Your task to perform on an android device: turn on improve location accuracy Image 0: 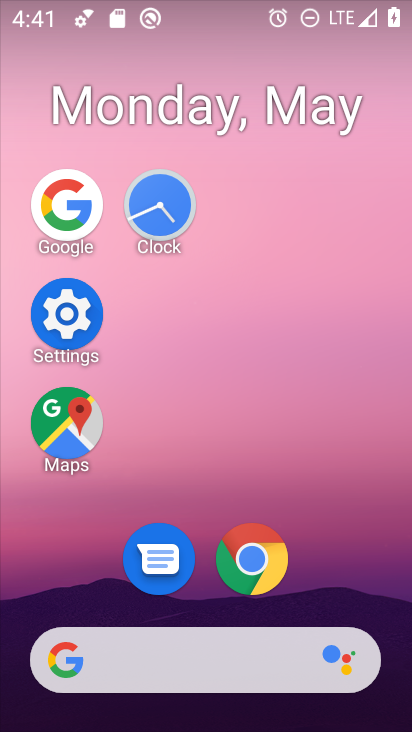
Step 0: click (62, 323)
Your task to perform on an android device: turn on improve location accuracy Image 1: 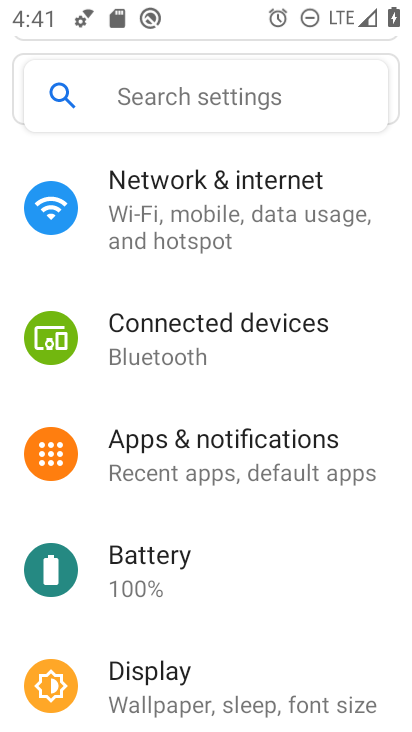
Step 1: drag from (229, 535) to (294, 199)
Your task to perform on an android device: turn on improve location accuracy Image 2: 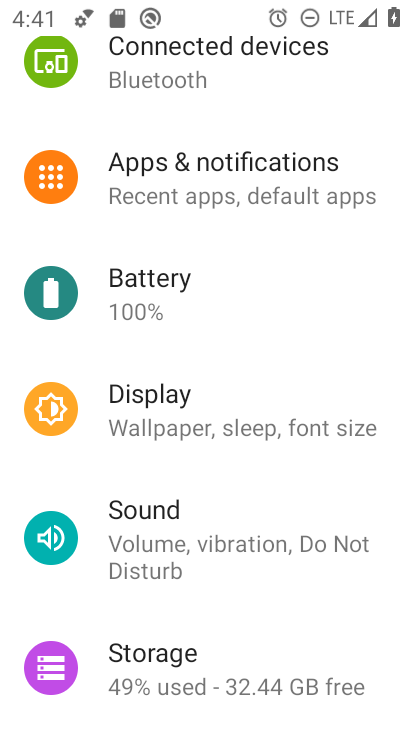
Step 2: drag from (227, 617) to (291, 277)
Your task to perform on an android device: turn on improve location accuracy Image 3: 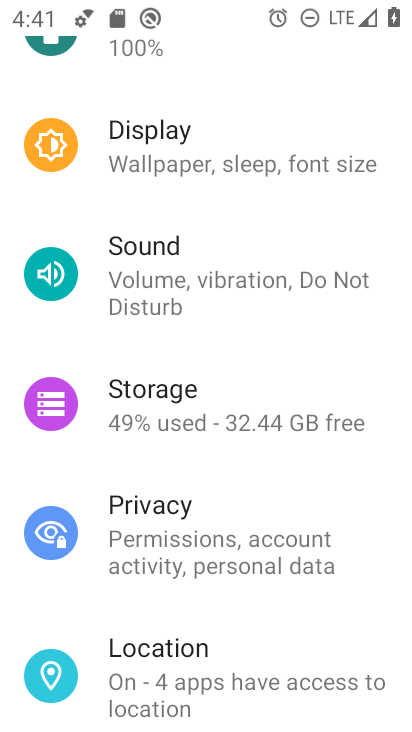
Step 3: click (221, 638)
Your task to perform on an android device: turn on improve location accuracy Image 4: 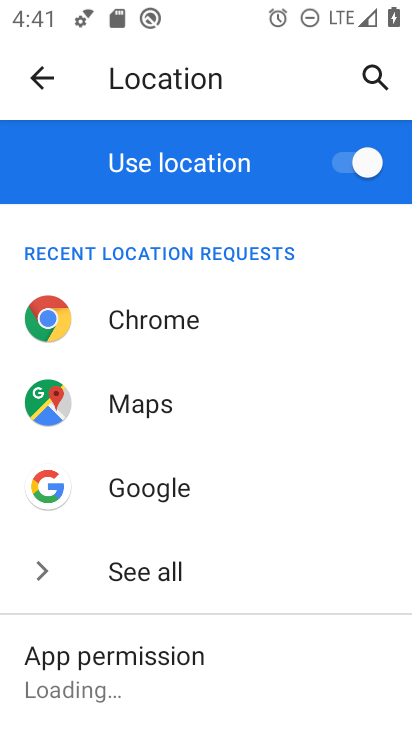
Step 4: drag from (234, 611) to (304, 219)
Your task to perform on an android device: turn on improve location accuracy Image 5: 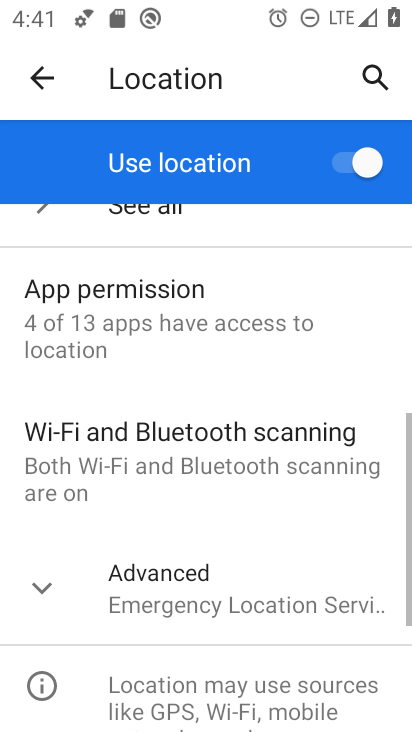
Step 5: click (238, 591)
Your task to perform on an android device: turn on improve location accuracy Image 6: 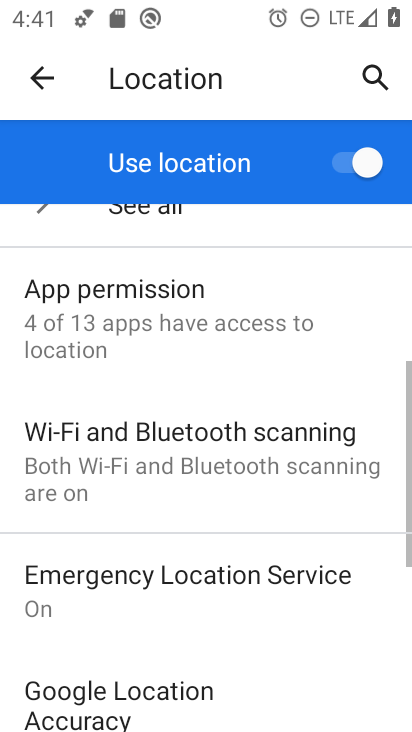
Step 6: drag from (238, 590) to (259, 252)
Your task to perform on an android device: turn on improve location accuracy Image 7: 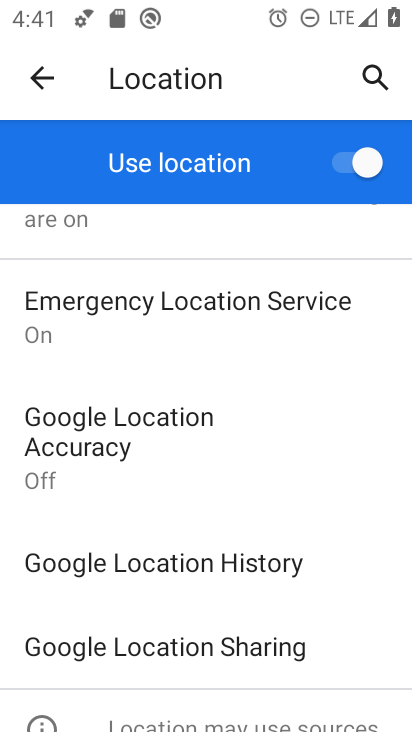
Step 7: click (196, 438)
Your task to perform on an android device: turn on improve location accuracy Image 8: 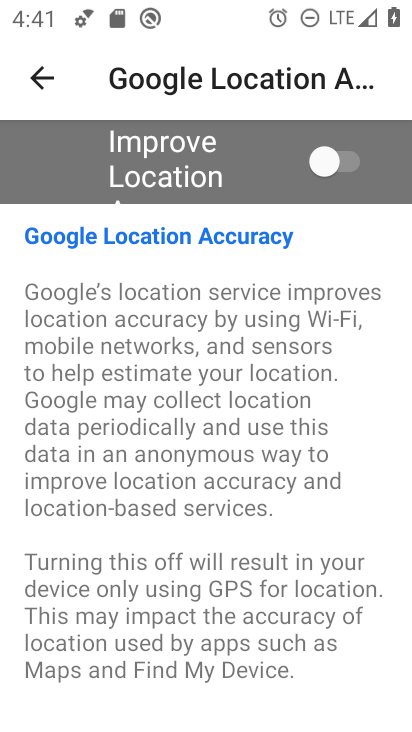
Step 8: click (320, 143)
Your task to perform on an android device: turn on improve location accuracy Image 9: 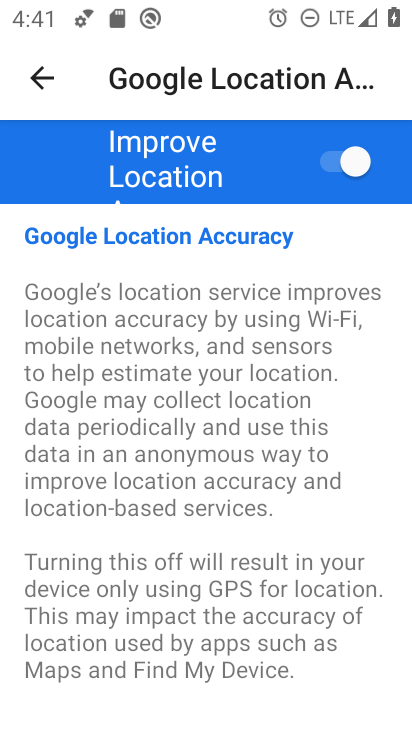
Step 9: task complete